Your task to perform on an android device: move an email to a new category in the gmail app Image 0: 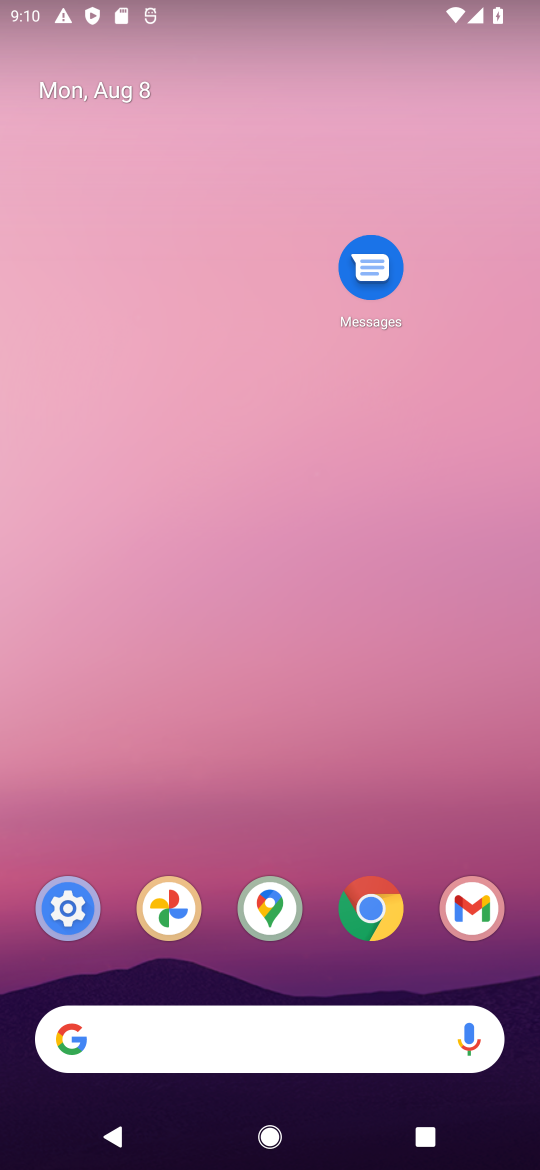
Step 0: click (480, 883)
Your task to perform on an android device: move an email to a new category in the gmail app Image 1: 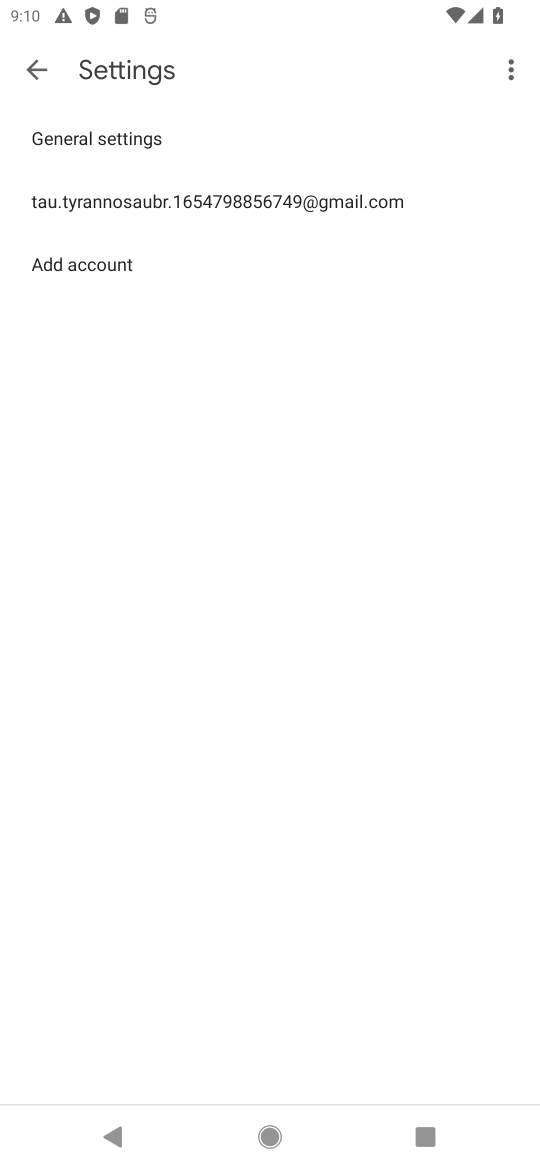
Step 1: click (45, 75)
Your task to perform on an android device: move an email to a new category in the gmail app Image 2: 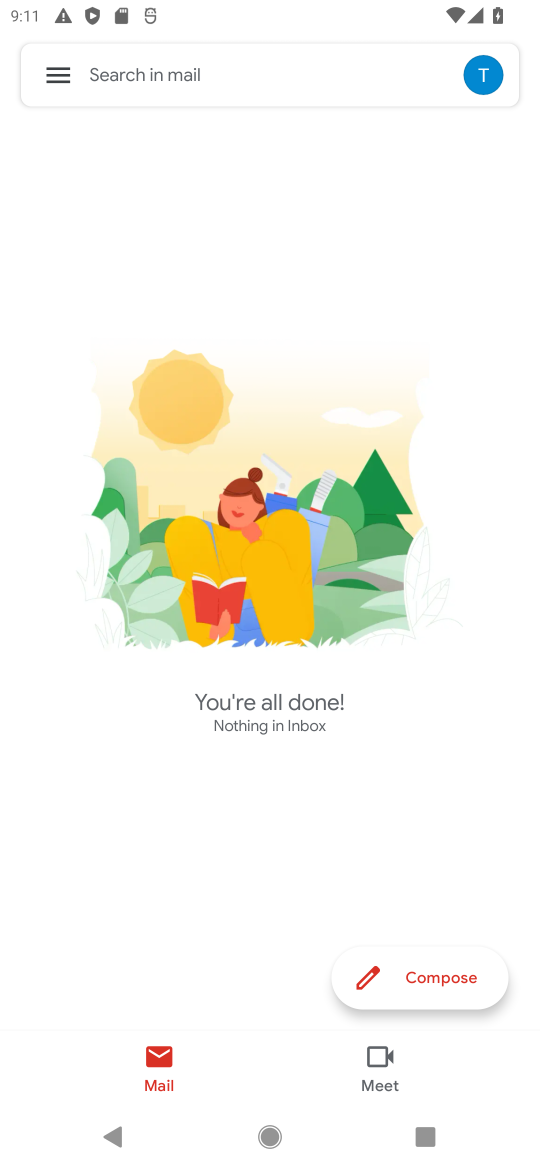
Step 2: task complete